Your task to perform on an android device: Open Chrome and go to the settings page Image 0: 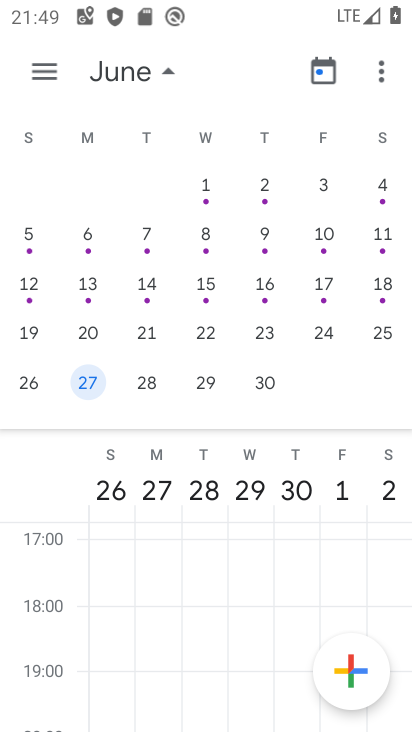
Step 0: press home button
Your task to perform on an android device: Open Chrome and go to the settings page Image 1: 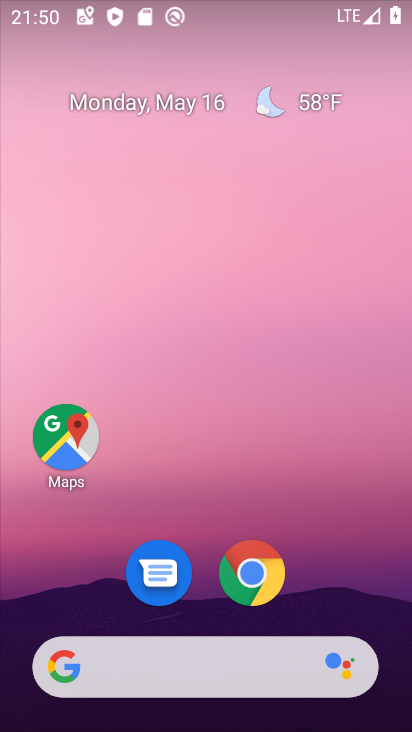
Step 1: click (257, 583)
Your task to perform on an android device: Open Chrome and go to the settings page Image 2: 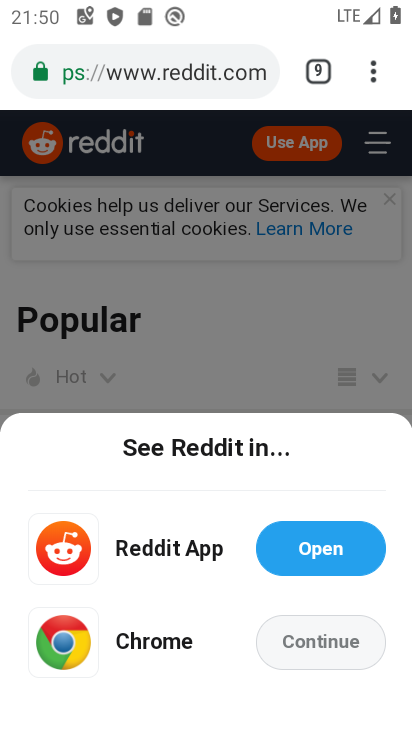
Step 2: click (371, 81)
Your task to perform on an android device: Open Chrome and go to the settings page Image 3: 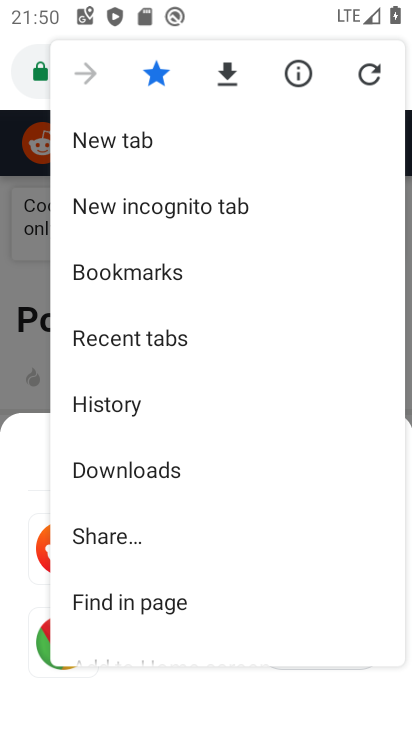
Step 3: drag from (253, 547) to (222, 198)
Your task to perform on an android device: Open Chrome and go to the settings page Image 4: 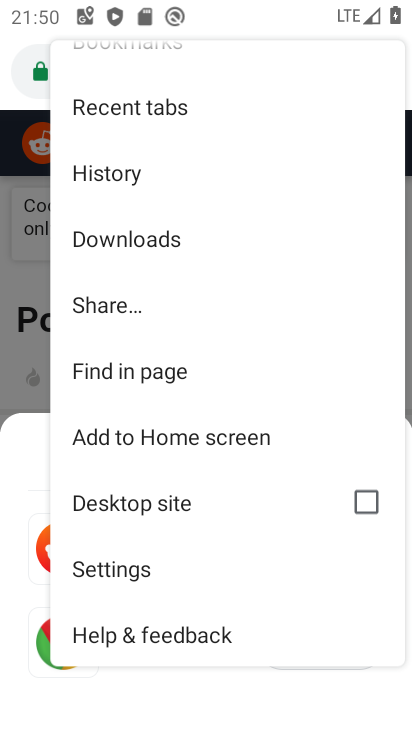
Step 4: click (114, 565)
Your task to perform on an android device: Open Chrome and go to the settings page Image 5: 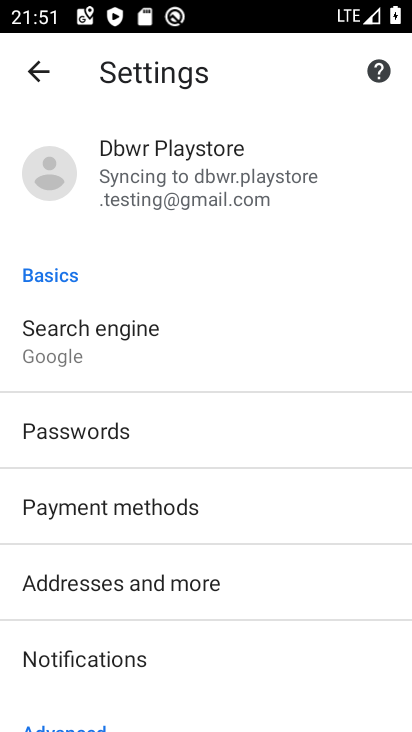
Step 5: task complete